Your task to perform on an android device: open wifi settings Image 0: 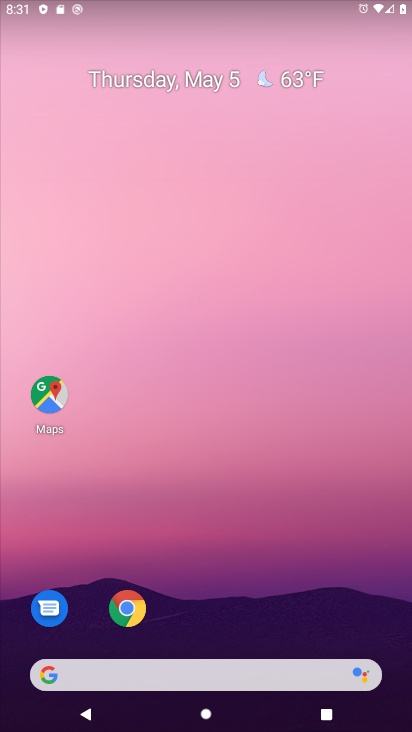
Step 0: drag from (201, 605) to (71, 111)
Your task to perform on an android device: open wifi settings Image 1: 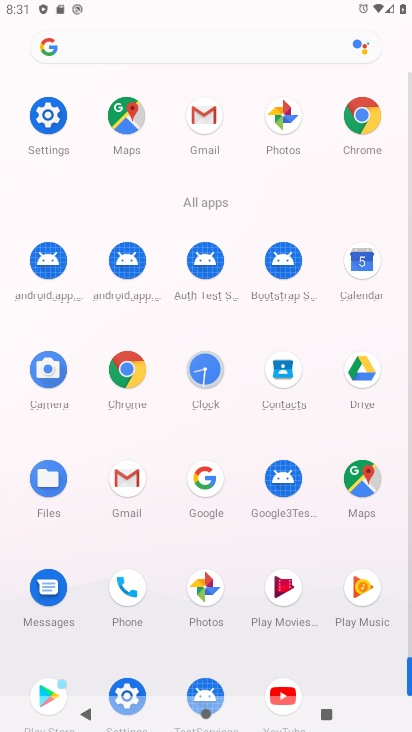
Step 1: click (50, 114)
Your task to perform on an android device: open wifi settings Image 2: 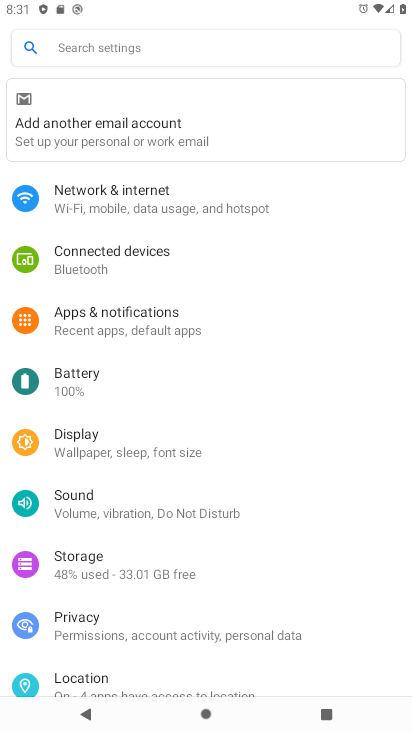
Step 2: click (121, 202)
Your task to perform on an android device: open wifi settings Image 3: 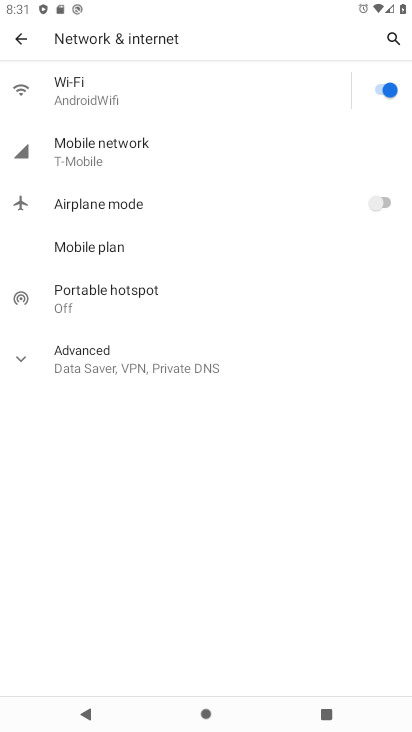
Step 3: click (56, 92)
Your task to perform on an android device: open wifi settings Image 4: 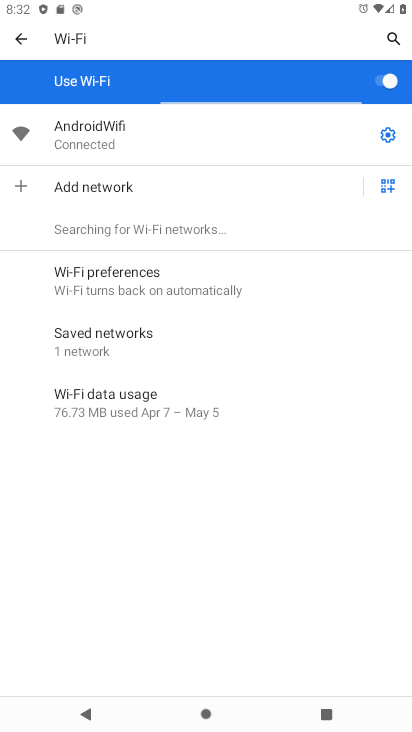
Step 4: task complete